Your task to perform on an android device: star an email in the gmail app Image 0: 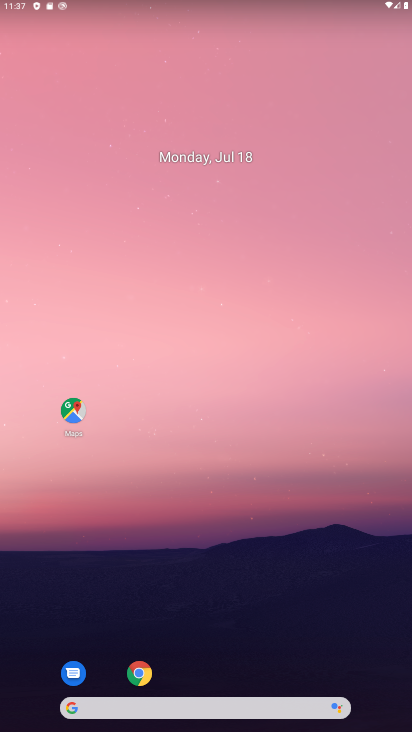
Step 0: drag from (254, 632) to (306, 84)
Your task to perform on an android device: star an email in the gmail app Image 1: 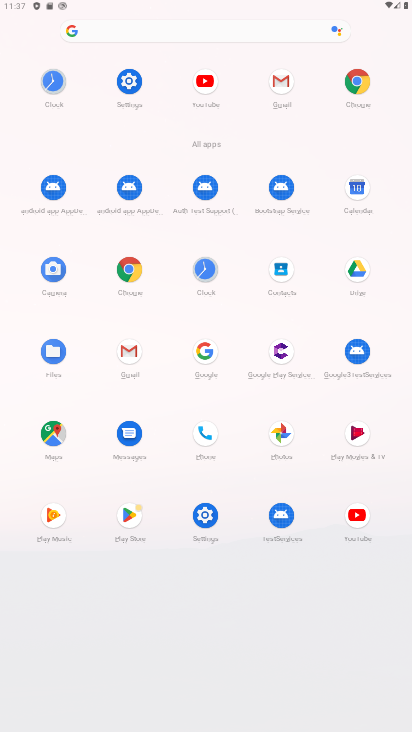
Step 1: click (128, 341)
Your task to perform on an android device: star an email in the gmail app Image 2: 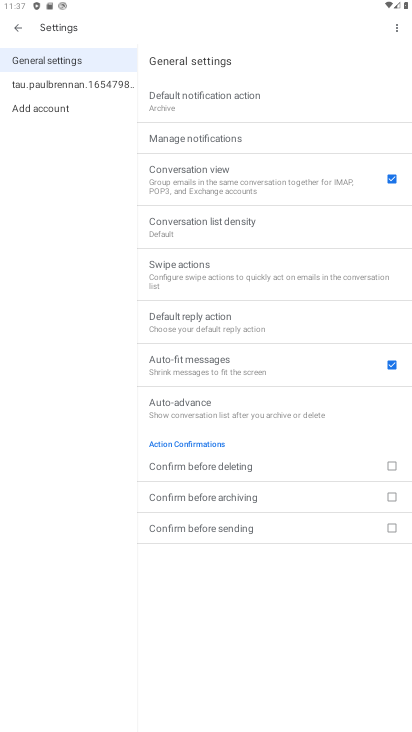
Step 2: click (23, 36)
Your task to perform on an android device: star an email in the gmail app Image 3: 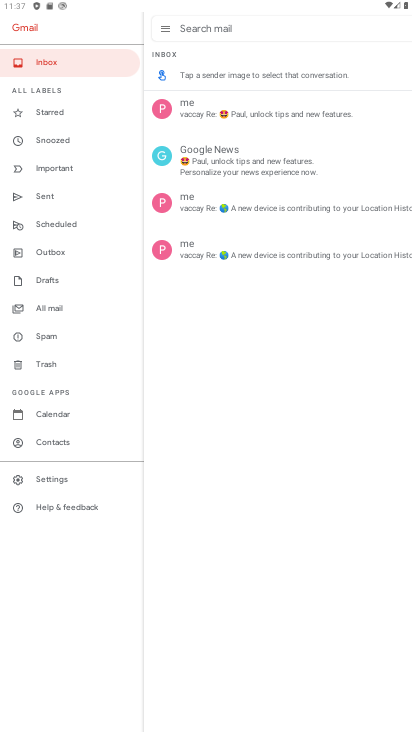
Step 3: drag from (321, 394) to (44, 224)
Your task to perform on an android device: star an email in the gmail app Image 4: 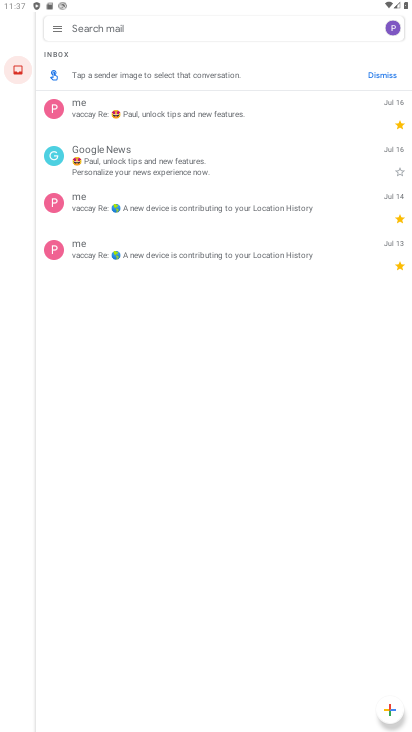
Step 4: click (402, 174)
Your task to perform on an android device: star an email in the gmail app Image 5: 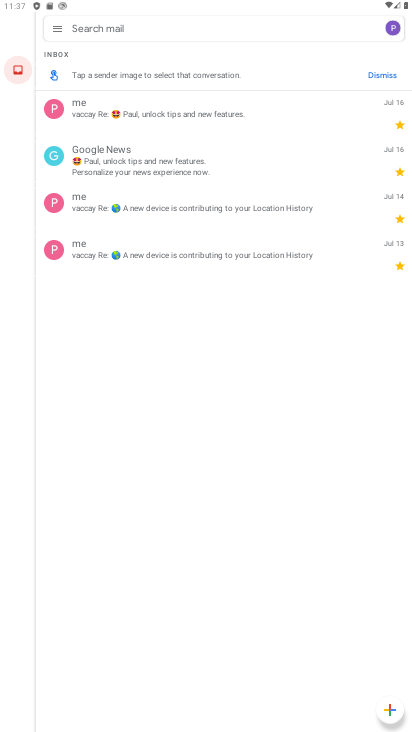
Step 5: task complete